Your task to perform on an android device: toggle location history Image 0: 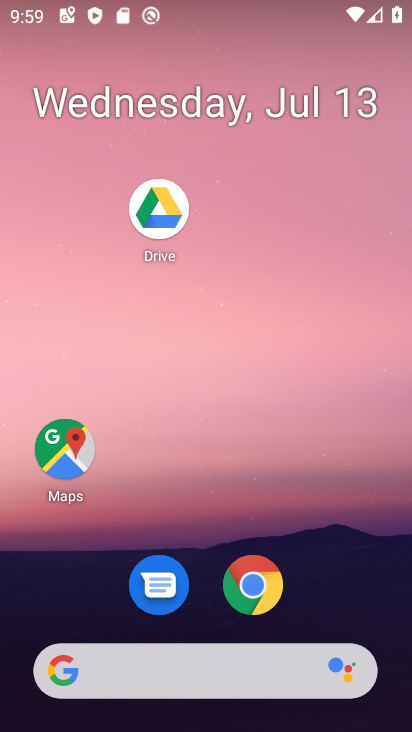
Step 0: click (61, 462)
Your task to perform on an android device: toggle location history Image 1: 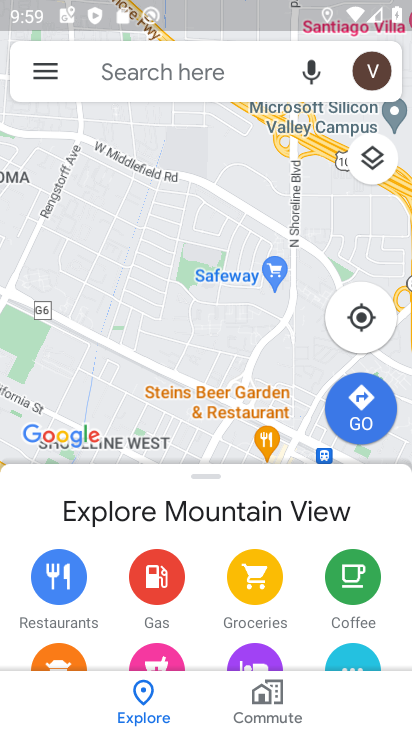
Step 1: click (44, 71)
Your task to perform on an android device: toggle location history Image 2: 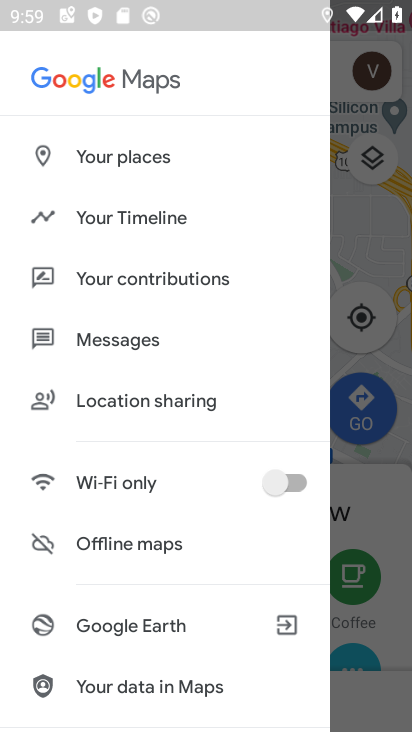
Step 2: click (150, 216)
Your task to perform on an android device: toggle location history Image 3: 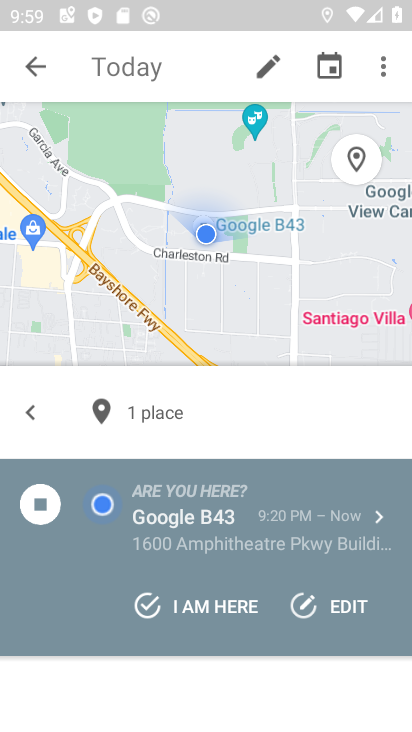
Step 3: click (379, 70)
Your task to perform on an android device: toggle location history Image 4: 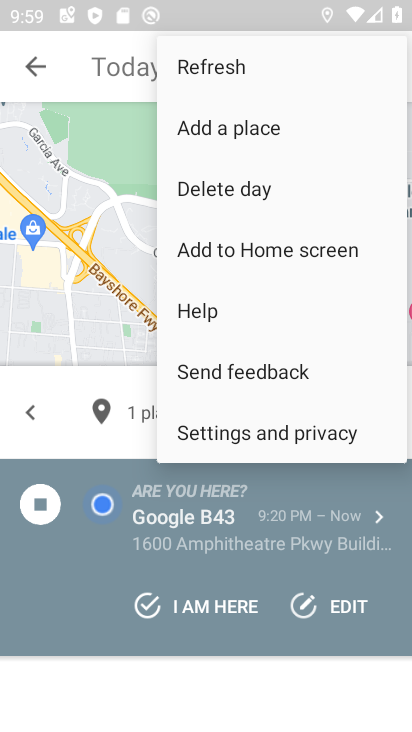
Step 4: click (247, 432)
Your task to perform on an android device: toggle location history Image 5: 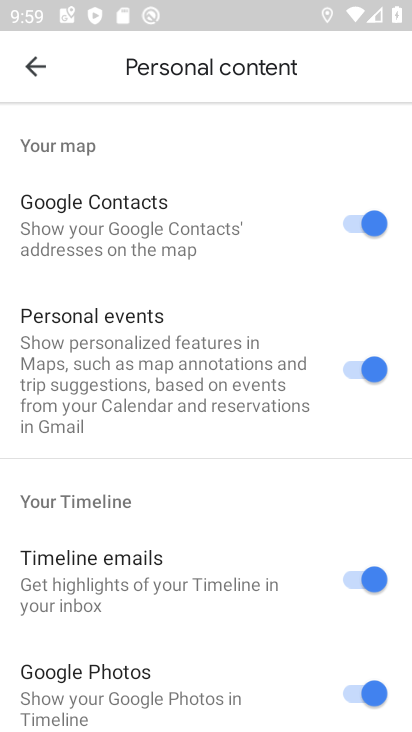
Step 5: drag from (134, 638) to (218, 184)
Your task to perform on an android device: toggle location history Image 6: 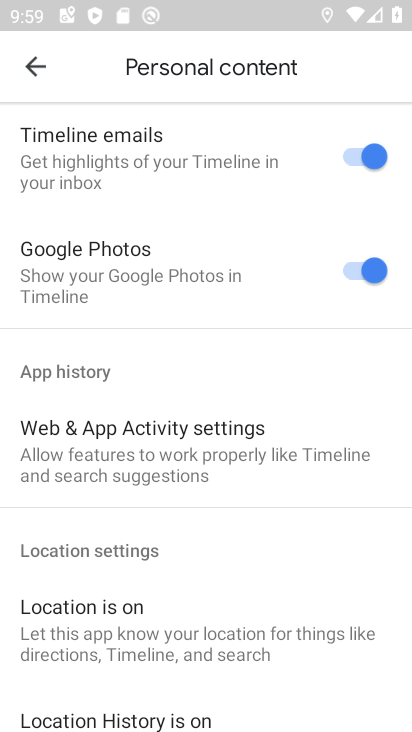
Step 6: drag from (189, 557) to (267, 201)
Your task to perform on an android device: toggle location history Image 7: 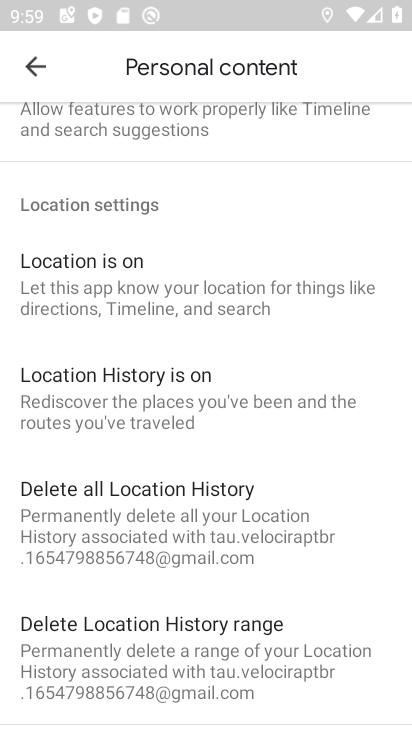
Step 7: click (170, 395)
Your task to perform on an android device: toggle location history Image 8: 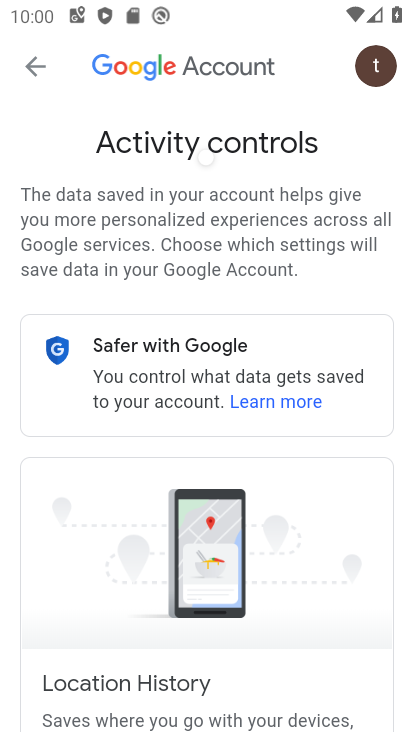
Step 8: drag from (297, 638) to (365, 177)
Your task to perform on an android device: toggle location history Image 9: 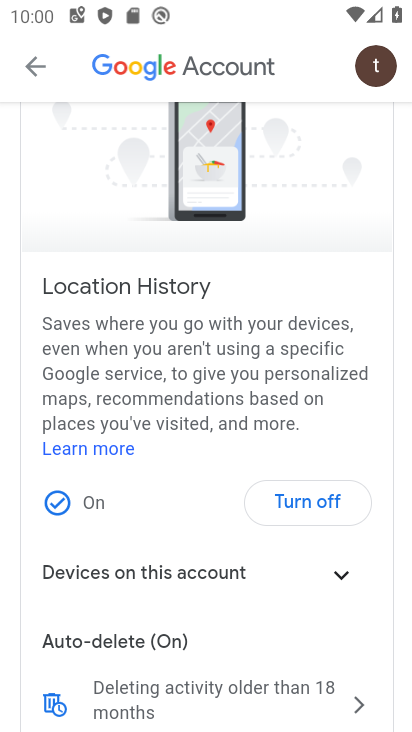
Step 9: drag from (224, 604) to (316, 225)
Your task to perform on an android device: toggle location history Image 10: 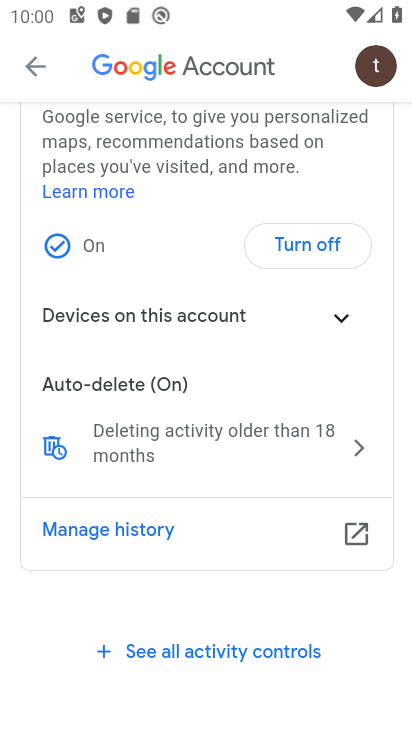
Step 10: click (305, 242)
Your task to perform on an android device: toggle location history Image 11: 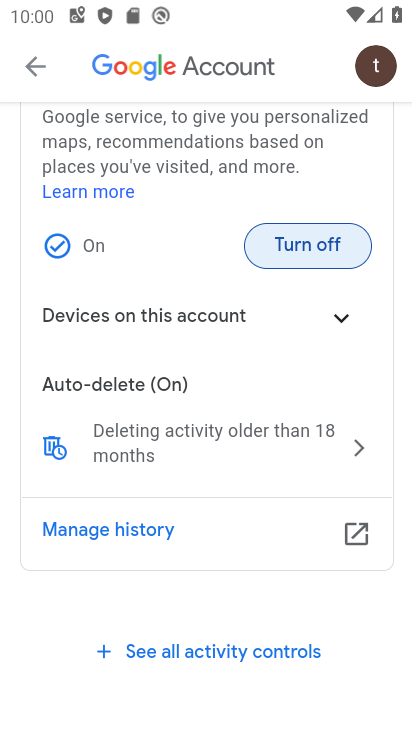
Step 11: click (317, 245)
Your task to perform on an android device: toggle location history Image 12: 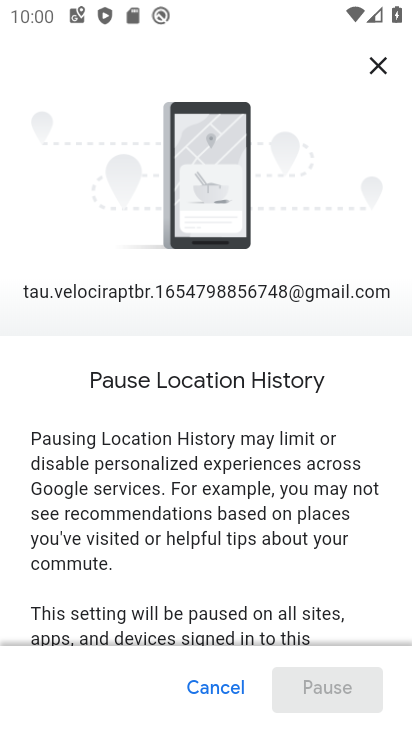
Step 12: drag from (263, 594) to (395, 146)
Your task to perform on an android device: toggle location history Image 13: 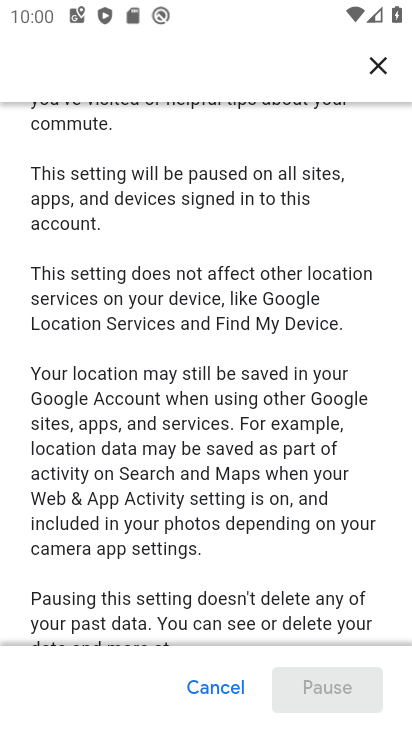
Step 13: drag from (291, 566) to (366, 176)
Your task to perform on an android device: toggle location history Image 14: 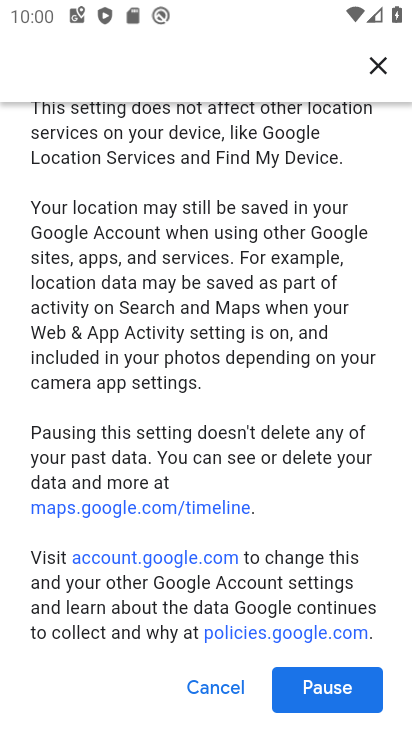
Step 14: click (332, 691)
Your task to perform on an android device: toggle location history Image 15: 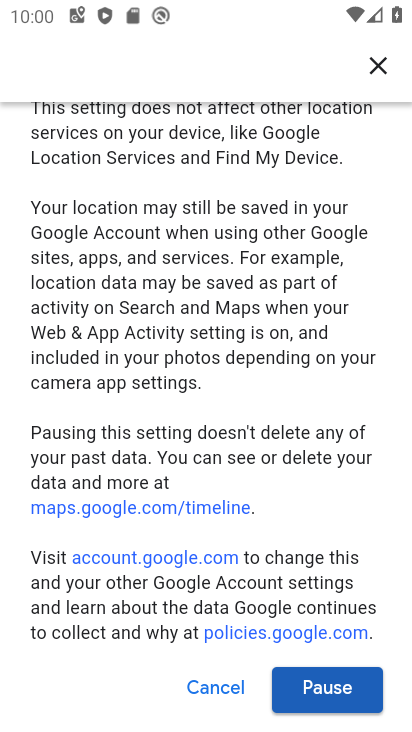
Step 15: click (329, 685)
Your task to perform on an android device: toggle location history Image 16: 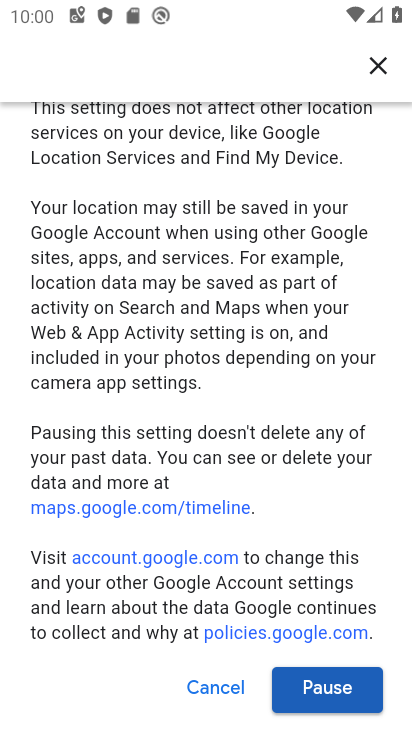
Step 16: click (334, 696)
Your task to perform on an android device: toggle location history Image 17: 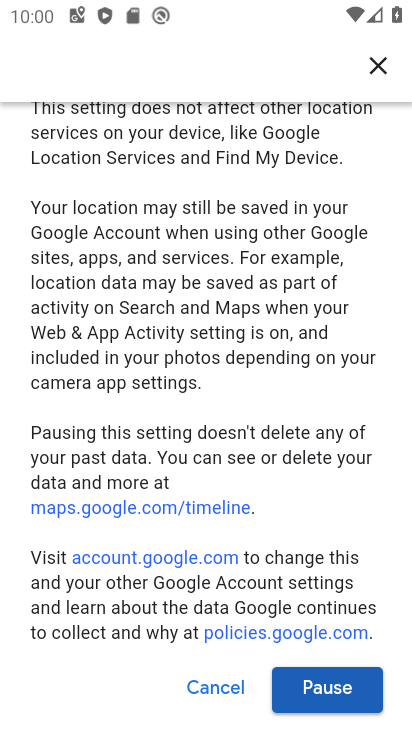
Step 17: click (322, 689)
Your task to perform on an android device: toggle location history Image 18: 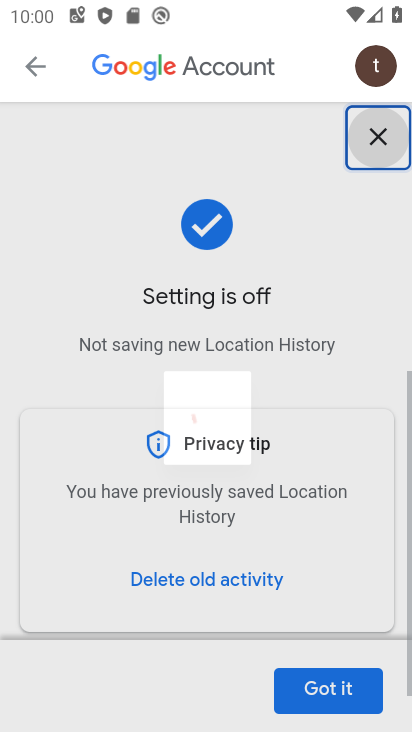
Step 18: click (330, 687)
Your task to perform on an android device: toggle location history Image 19: 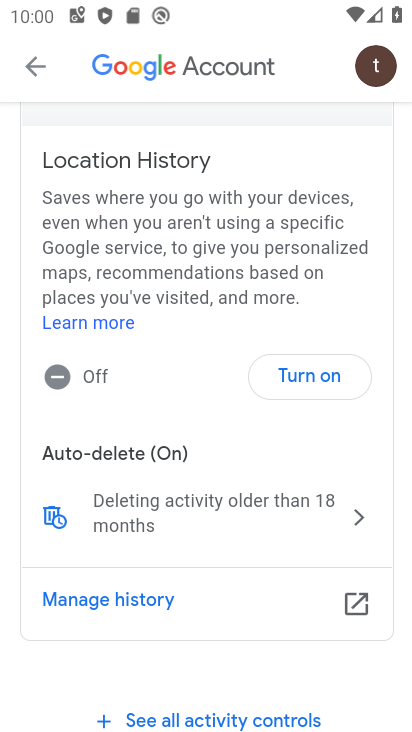
Step 19: task complete